Your task to perform on an android device: open a bookmark in the chrome app Image 0: 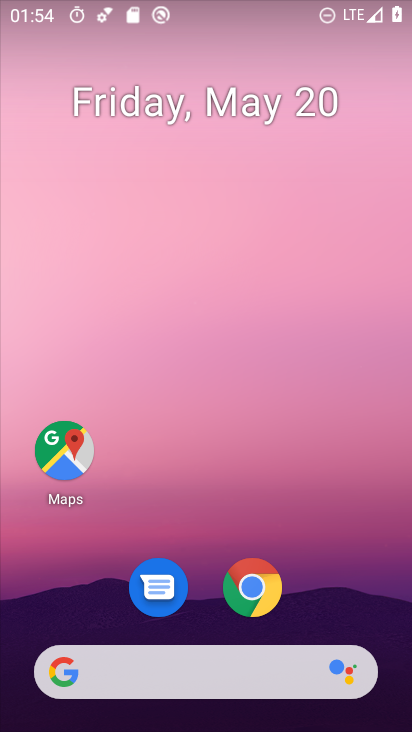
Step 0: drag from (371, 581) to (371, 159)
Your task to perform on an android device: open a bookmark in the chrome app Image 1: 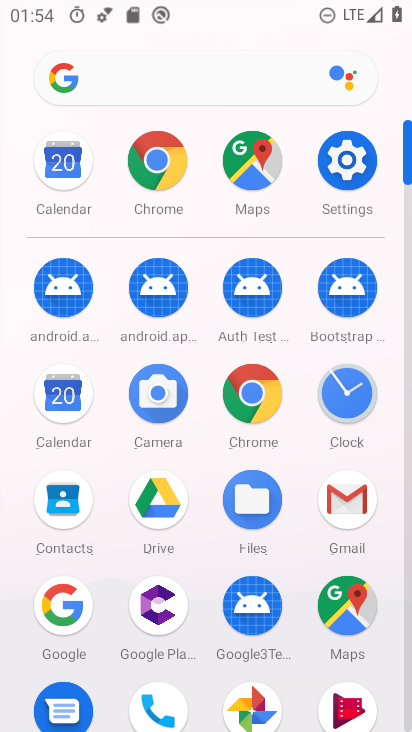
Step 1: click (260, 401)
Your task to perform on an android device: open a bookmark in the chrome app Image 2: 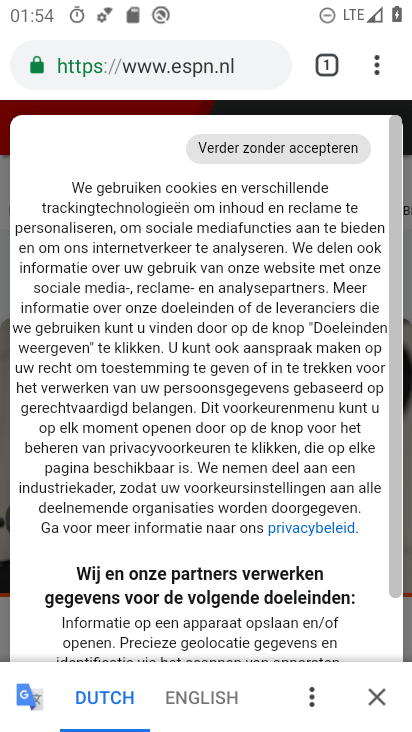
Step 2: click (378, 72)
Your task to perform on an android device: open a bookmark in the chrome app Image 3: 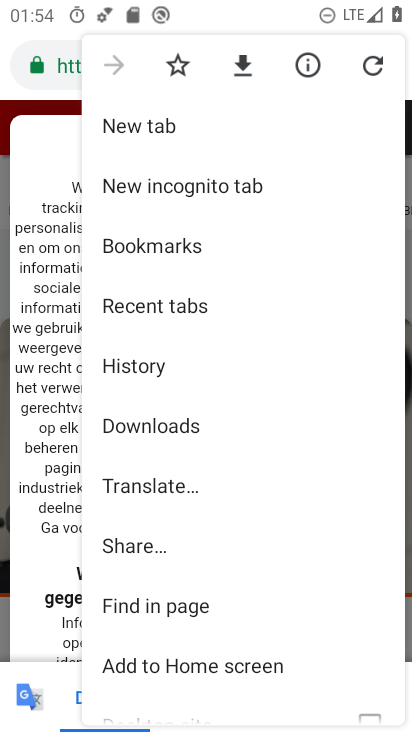
Step 3: click (202, 268)
Your task to perform on an android device: open a bookmark in the chrome app Image 4: 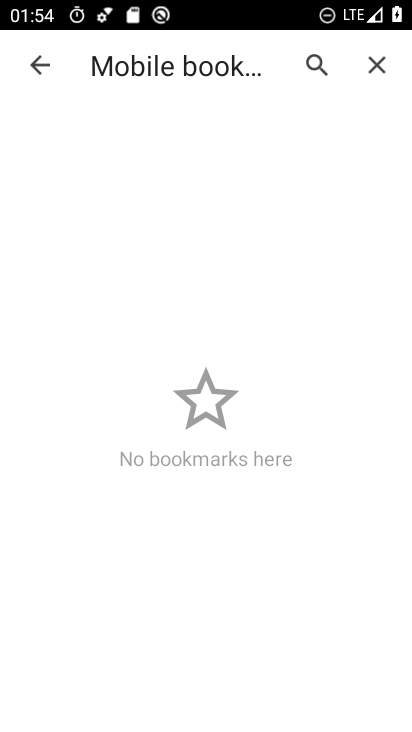
Step 4: task complete